Your task to perform on an android device: Show me popular videos on Youtube Image 0: 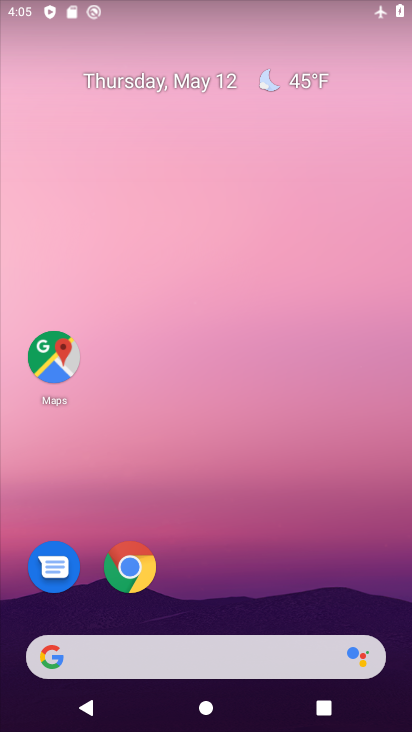
Step 0: drag from (234, 592) to (204, 132)
Your task to perform on an android device: Show me popular videos on Youtube Image 1: 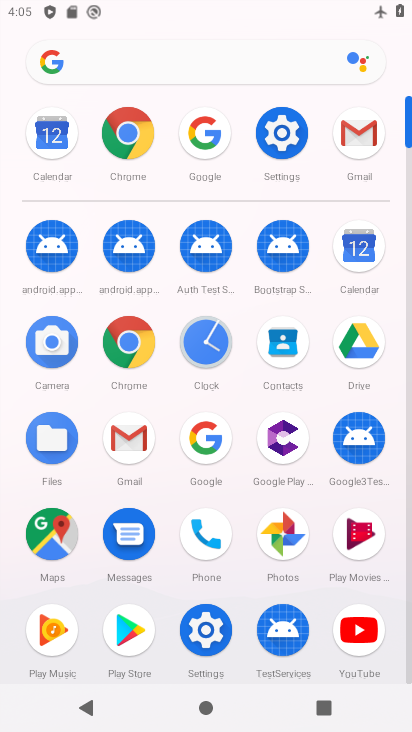
Step 1: click (360, 606)
Your task to perform on an android device: Show me popular videos on Youtube Image 2: 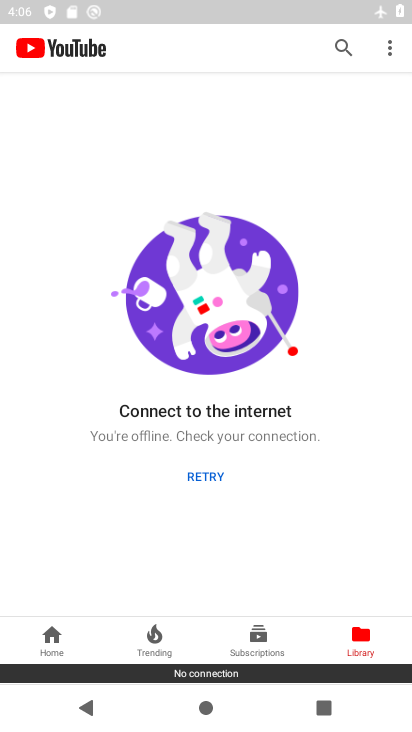
Step 2: task complete